Your task to perform on an android device: Open ESPN.com Image 0: 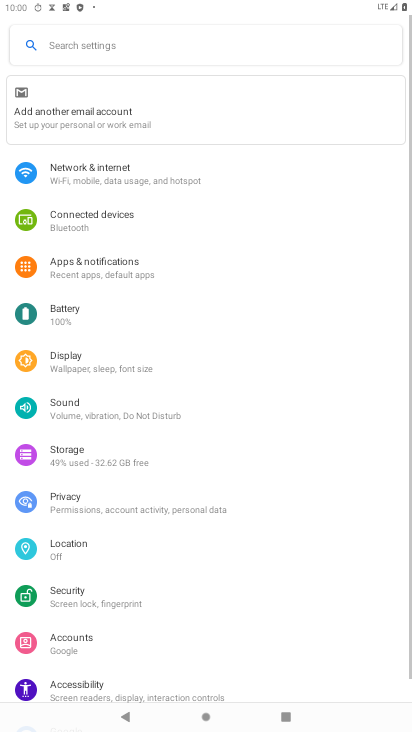
Step 0: press home button
Your task to perform on an android device: Open ESPN.com Image 1: 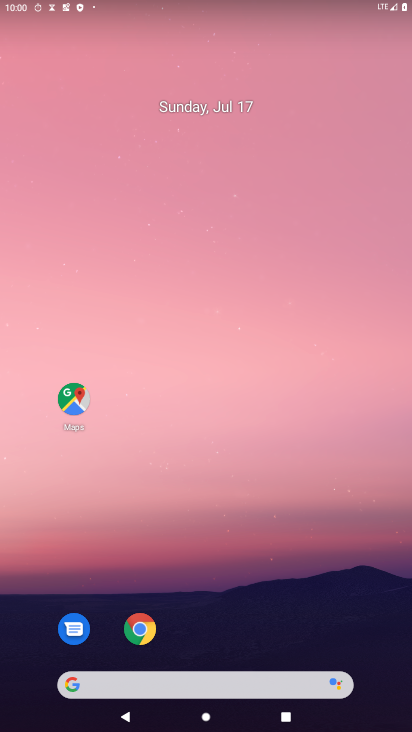
Step 1: click (136, 642)
Your task to perform on an android device: Open ESPN.com Image 2: 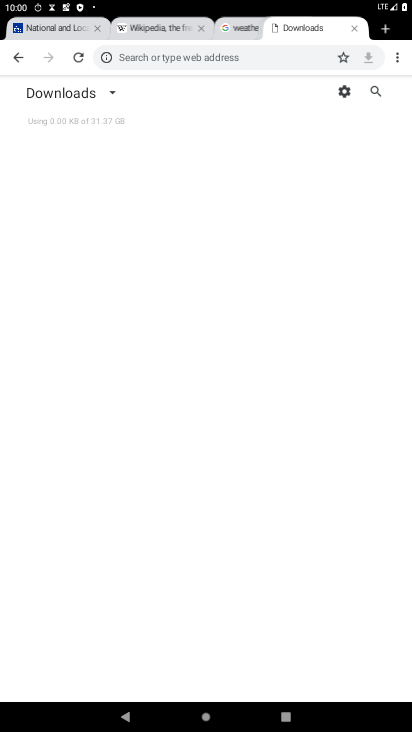
Step 2: click (399, 60)
Your task to perform on an android device: Open ESPN.com Image 3: 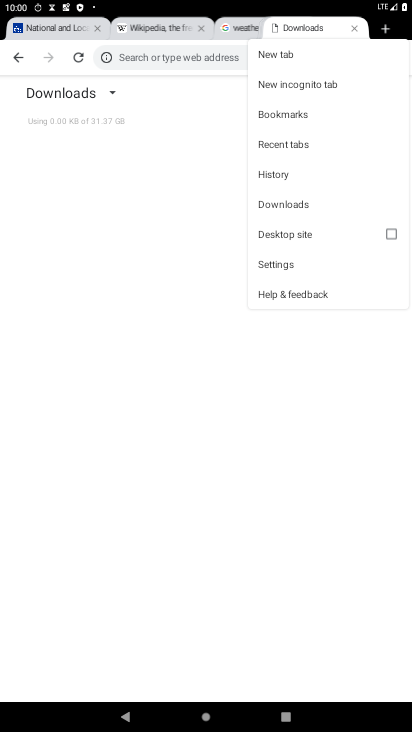
Step 3: click (279, 57)
Your task to perform on an android device: Open ESPN.com Image 4: 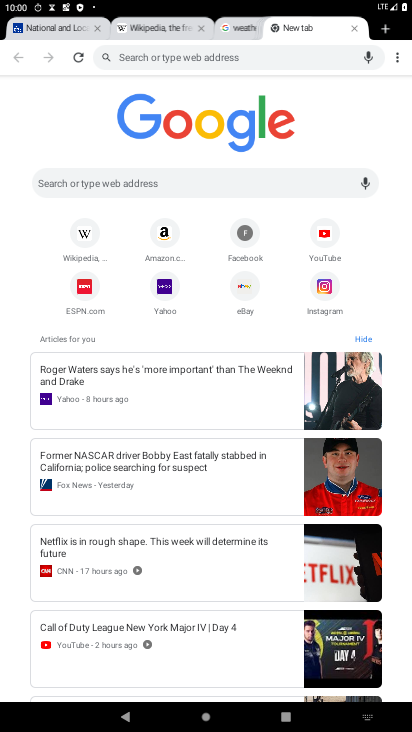
Step 4: click (81, 285)
Your task to perform on an android device: Open ESPN.com Image 5: 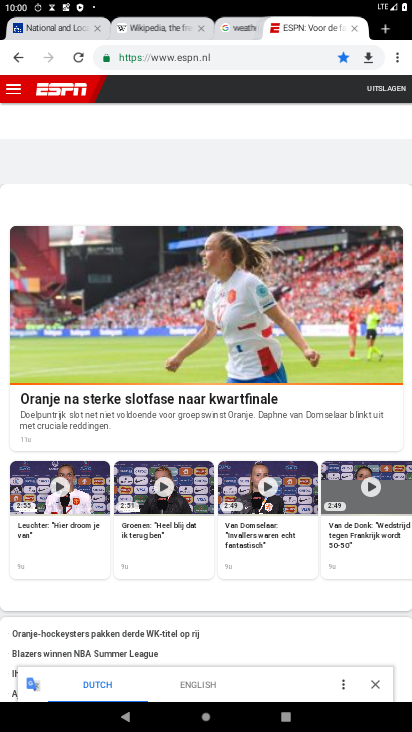
Step 5: task complete